Your task to perform on an android device: toggle priority inbox in the gmail app Image 0: 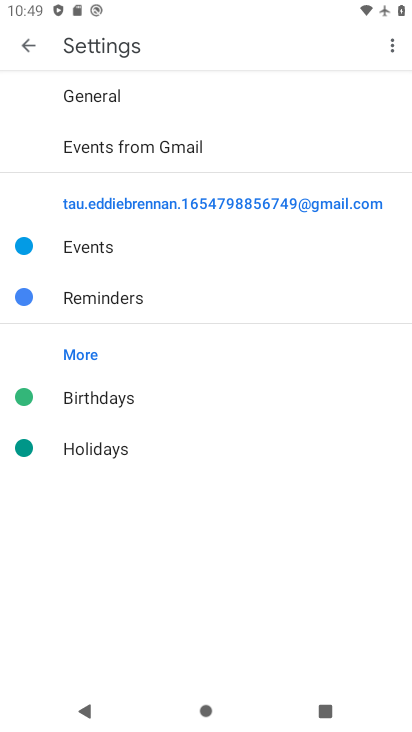
Step 0: press home button
Your task to perform on an android device: toggle priority inbox in the gmail app Image 1: 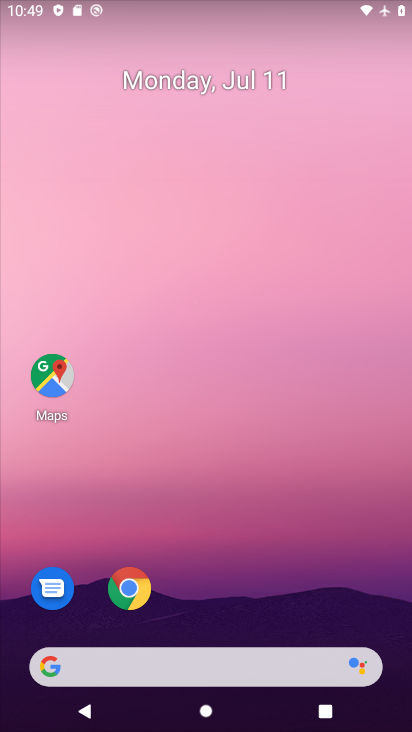
Step 1: drag from (193, 672) to (328, 105)
Your task to perform on an android device: toggle priority inbox in the gmail app Image 2: 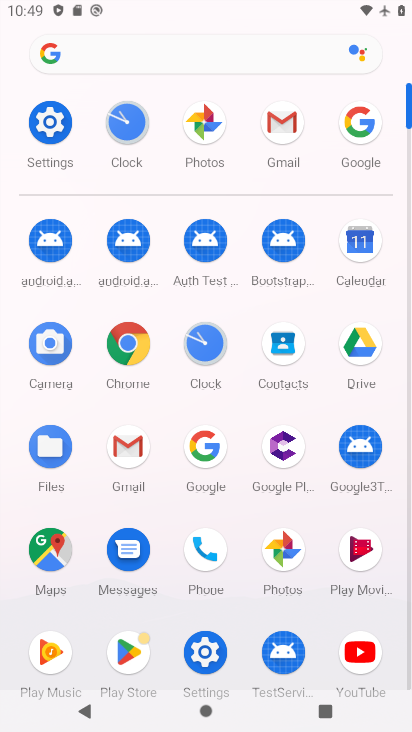
Step 2: click (275, 136)
Your task to perform on an android device: toggle priority inbox in the gmail app Image 3: 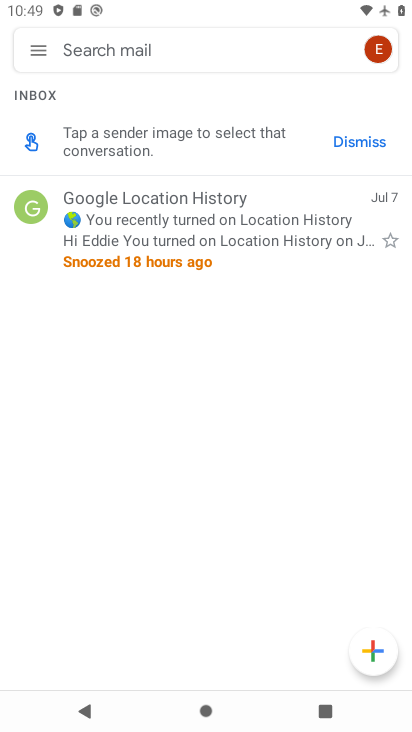
Step 3: click (44, 53)
Your task to perform on an android device: toggle priority inbox in the gmail app Image 4: 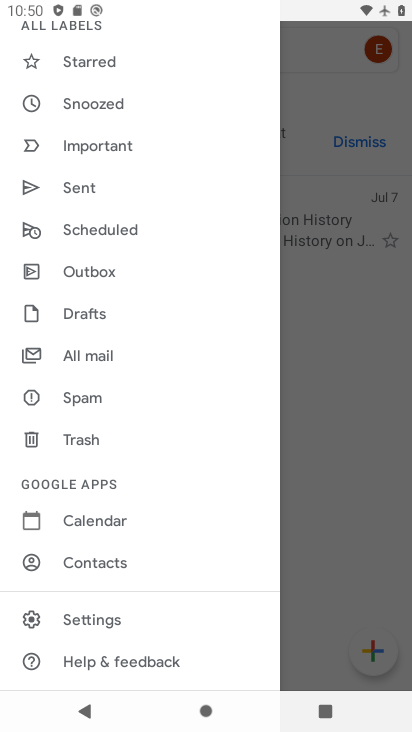
Step 4: click (116, 620)
Your task to perform on an android device: toggle priority inbox in the gmail app Image 5: 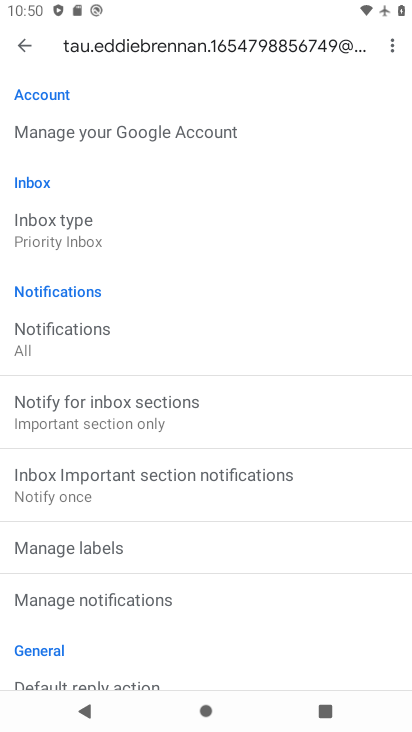
Step 5: click (46, 244)
Your task to perform on an android device: toggle priority inbox in the gmail app Image 6: 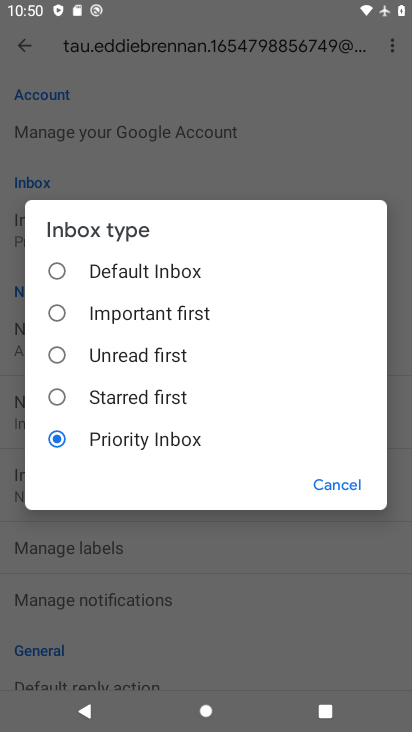
Step 6: click (59, 270)
Your task to perform on an android device: toggle priority inbox in the gmail app Image 7: 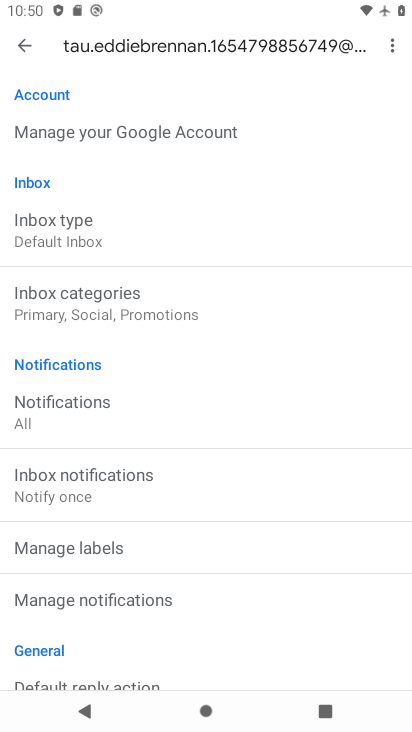
Step 7: task complete